Your task to perform on an android device: add a label to a message in the gmail app Image 0: 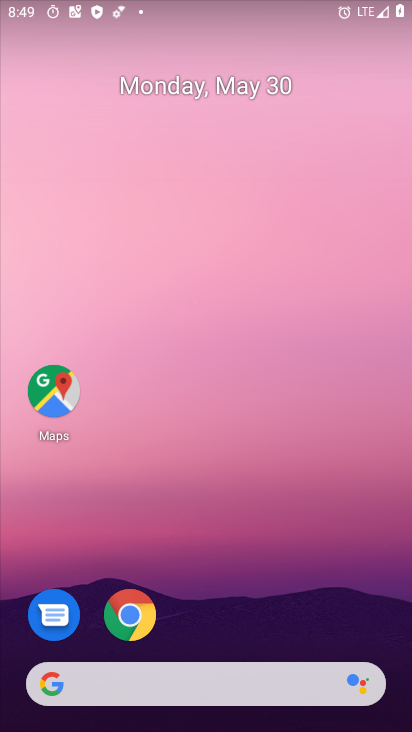
Step 0: drag from (292, 620) to (305, 103)
Your task to perform on an android device: add a label to a message in the gmail app Image 1: 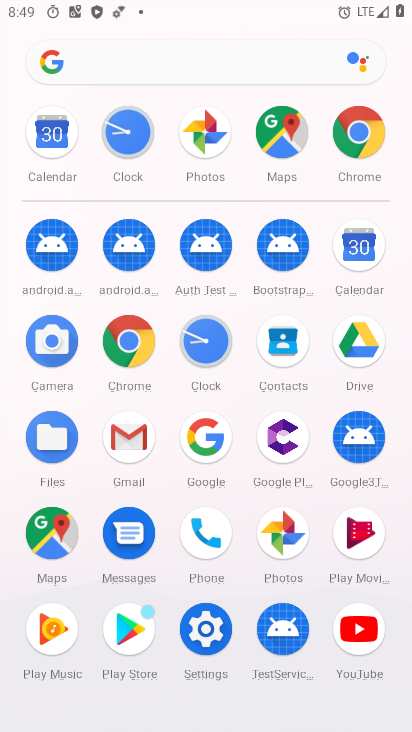
Step 1: click (131, 439)
Your task to perform on an android device: add a label to a message in the gmail app Image 2: 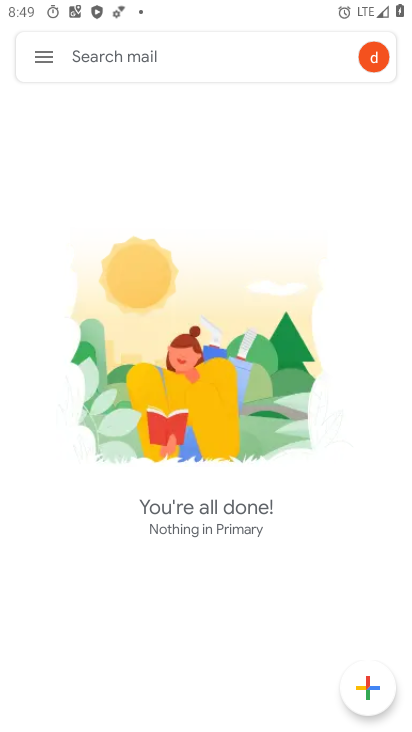
Step 2: click (46, 54)
Your task to perform on an android device: add a label to a message in the gmail app Image 3: 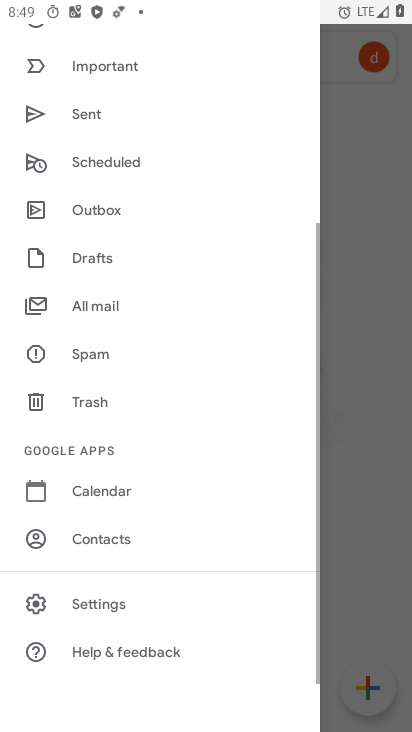
Step 3: drag from (120, 186) to (199, 675)
Your task to perform on an android device: add a label to a message in the gmail app Image 4: 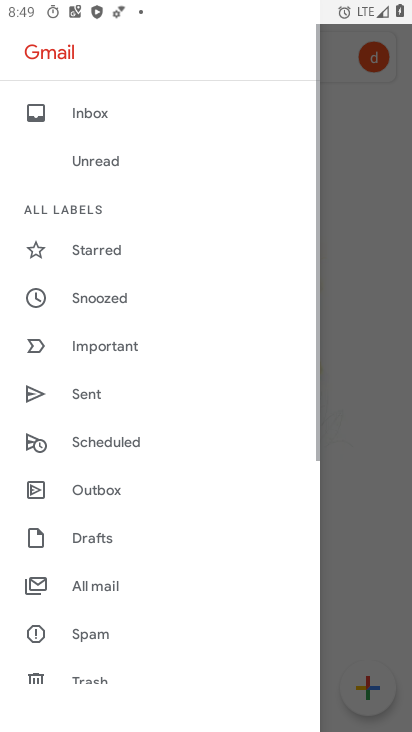
Step 4: click (96, 110)
Your task to perform on an android device: add a label to a message in the gmail app Image 5: 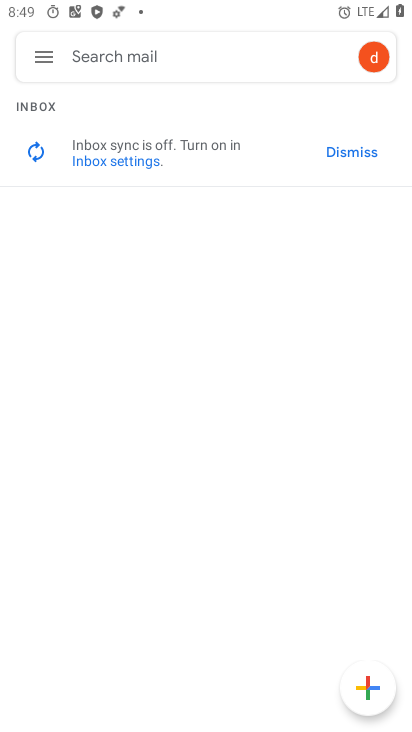
Step 5: task complete